Your task to perform on an android device: change text size in settings app Image 0: 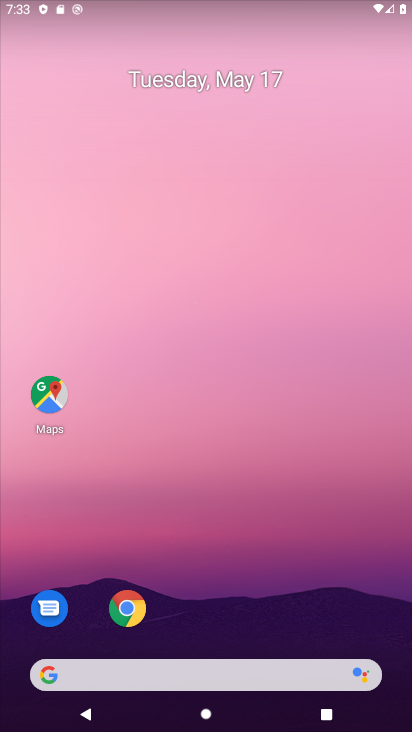
Step 0: drag from (243, 593) to (269, 208)
Your task to perform on an android device: change text size in settings app Image 1: 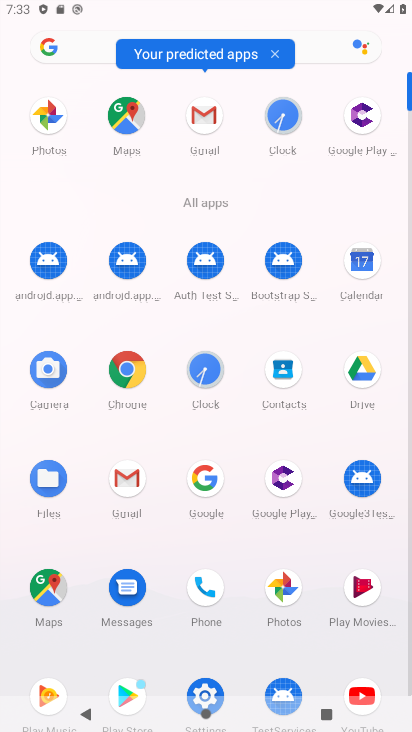
Step 1: click (209, 690)
Your task to perform on an android device: change text size in settings app Image 2: 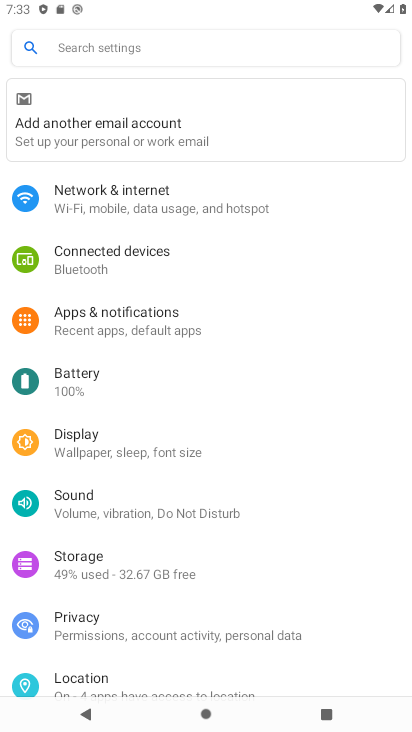
Step 2: drag from (135, 645) to (226, 404)
Your task to perform on an android device: change text size in settings app Image 3: 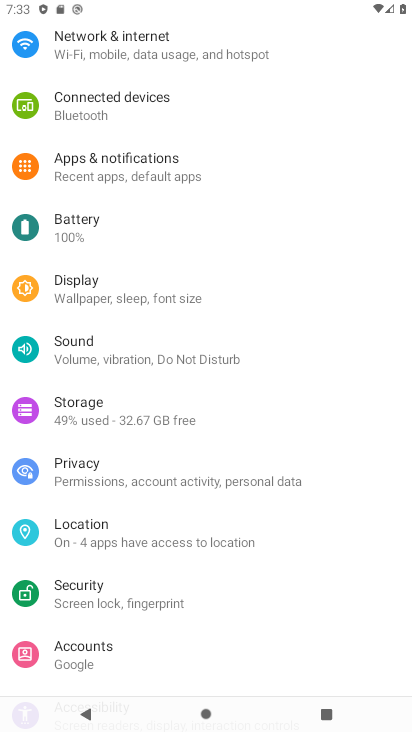
Step 3: click (170, 297)
Your task to perform on an android device: change text size in settings app Image 4: 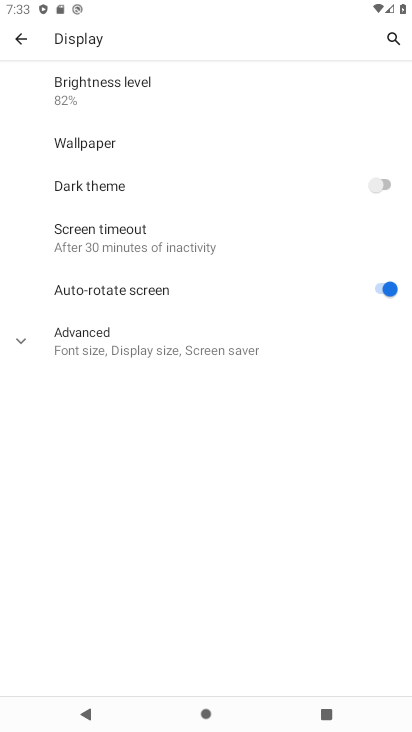
Step 4: click (151, 346)
Your task to perform on an android device: change text size in settings app Image 5: 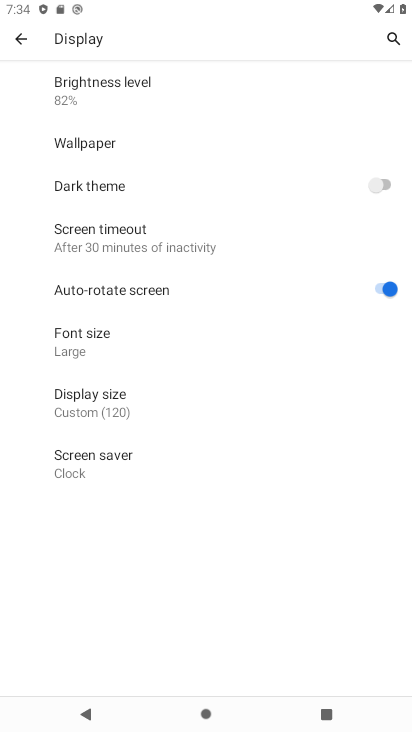
Step 5: click (151, 346)
Your task to perform on an android device: change text size in settings app Image 6: 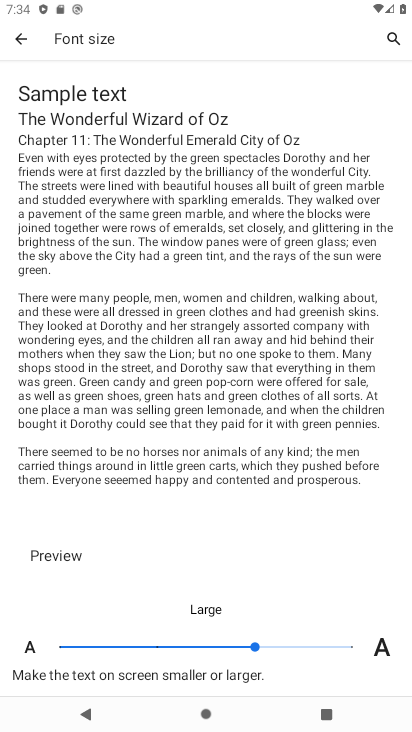
Step 6: click (61, 644)
Your task to perform on an android device: change text size in settings app Image 7: 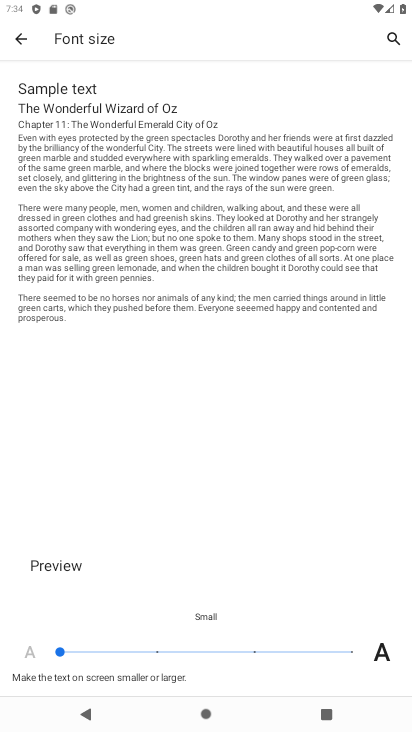
Step 7: task complete